Your task to perform on an android device: move a message to another label in the gmail app Image 0: 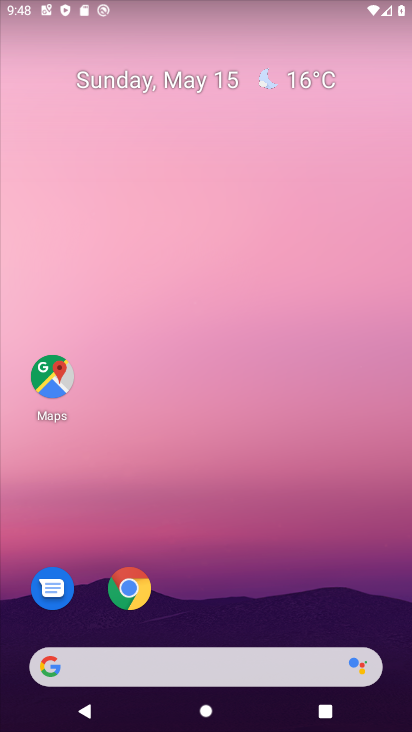
Step 0: drag from (181, 586) to (203, 13)
Your task to perform on an android device: move a message to another label in the gmail app Image 1: 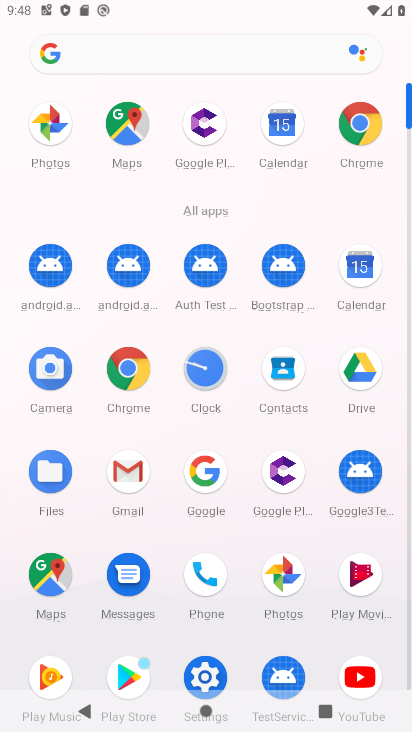
Step 1: click (135, 480)
Your task to perform on an android device: move a message to another label in the gmail app Image 2: 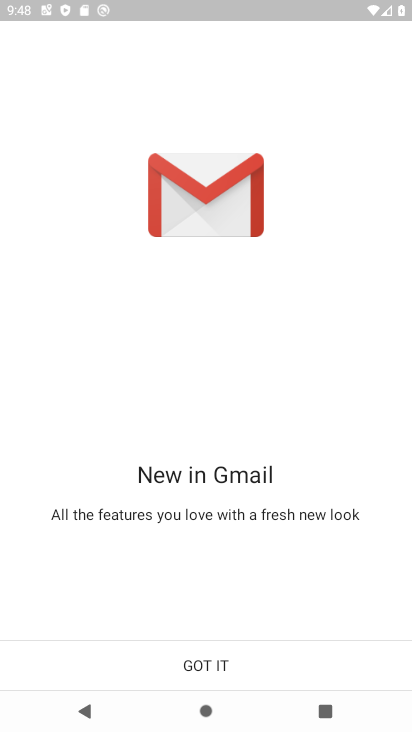
Step 2: click (207, 660)
Your task to perform on an android device: move a message to another label in the gmail app Image 3: 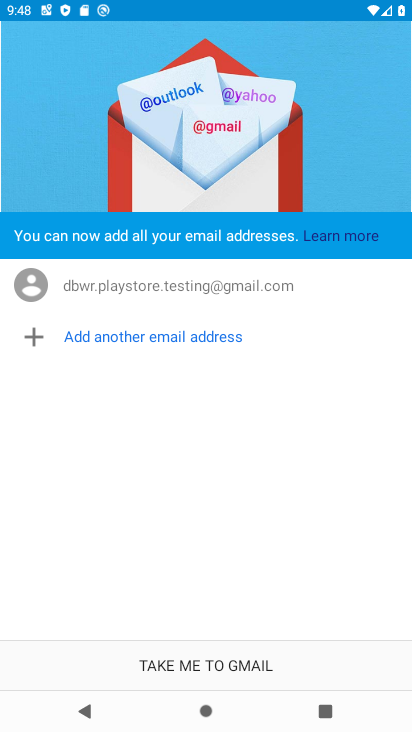
Step 3: click (207, 660)
Your task to perform on an android device: move a message to another label in the gmail app Image 4: 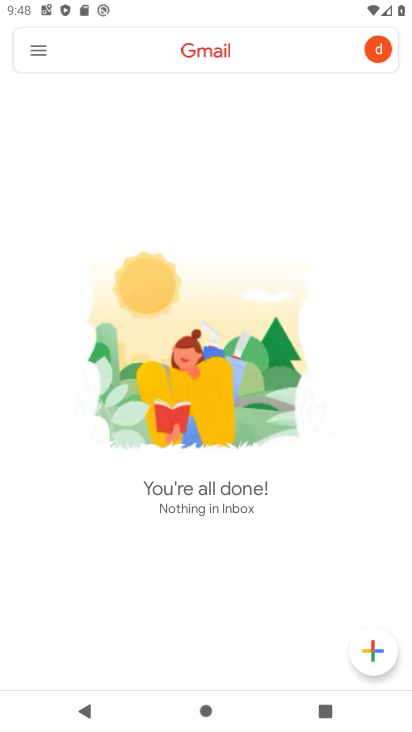
Step 4: task complete